Your task to perform on an android device: What's on my calendar tomorrow? Image 0: 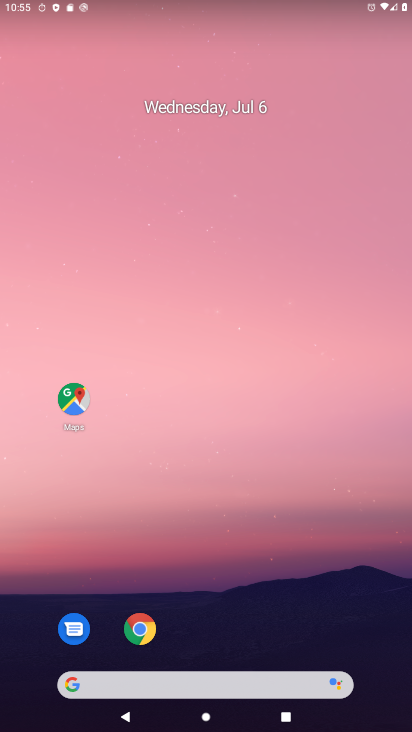
Step 0: press home button
Your task to perform on an android device: What's on my calendar tomorrow? Image 1: 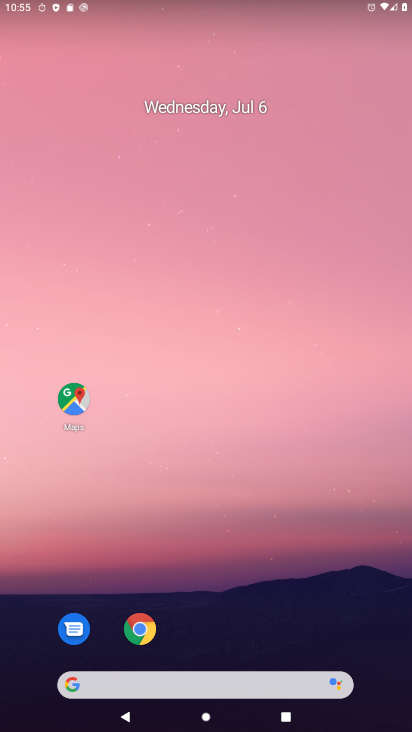
Step 1: drag from (248, 622) to (327, 94)
Your task to perform on an android device: What's on my calendar tomorrow? Image 2: 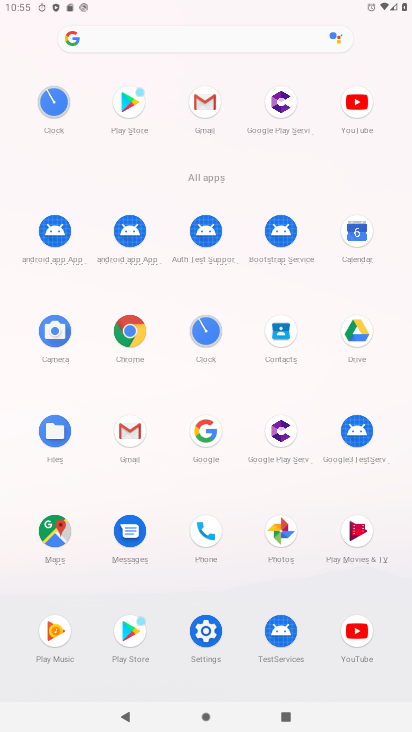
Step 2: click (357, 234)
Your task to perform on an android device: What's on my calendar tomorrow? Image 3: 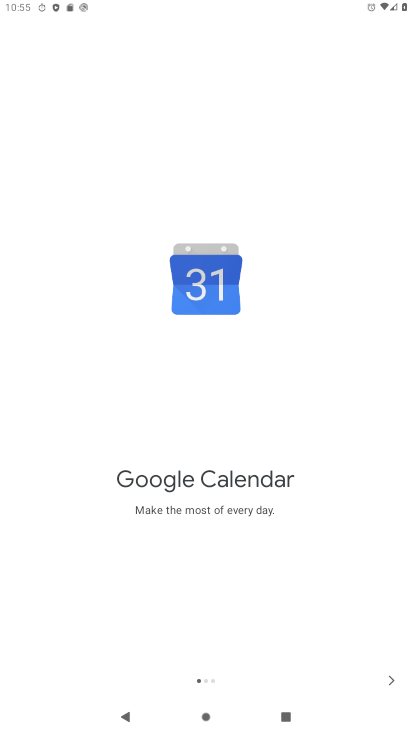
Step 3: click (382, 685)
Your task to perform on an android device: What's on my calendar tomorrow? Image 4: 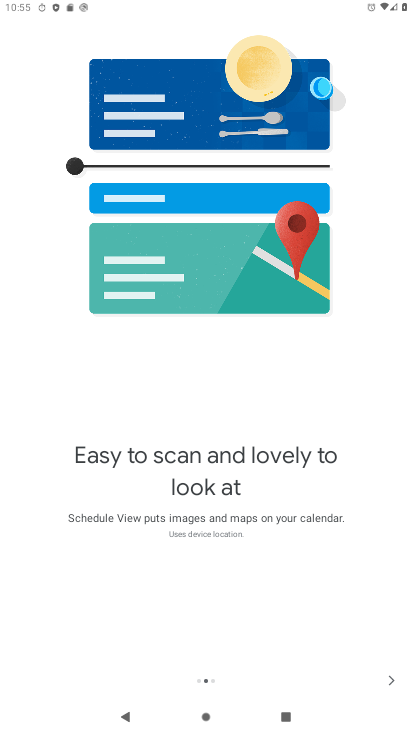
Step 4: click (382, 685)
Your task to perform on an android device: What's on my calendar tomorrow? Image 5: 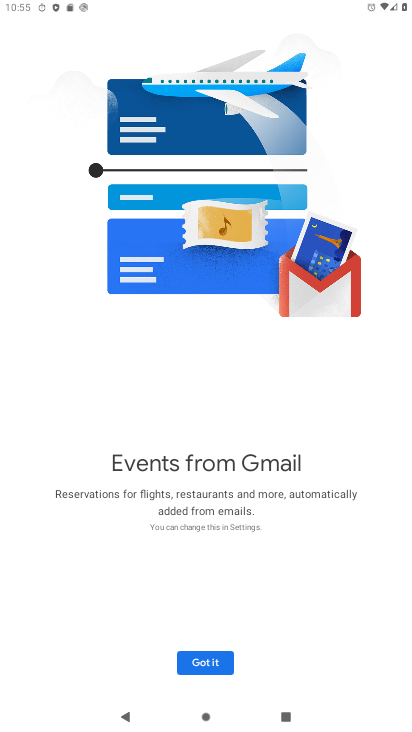
Step 5: click (204, 662)
Your task to perform on an android device: What's on my calendar tomorrow? Image 6: 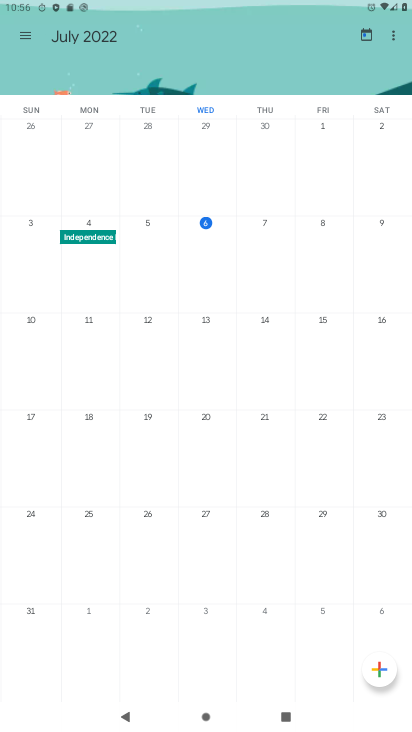
Step 6: click (260, 225)
Your task to perform on an android device: What's on my calendar tomorrow? Image 7: 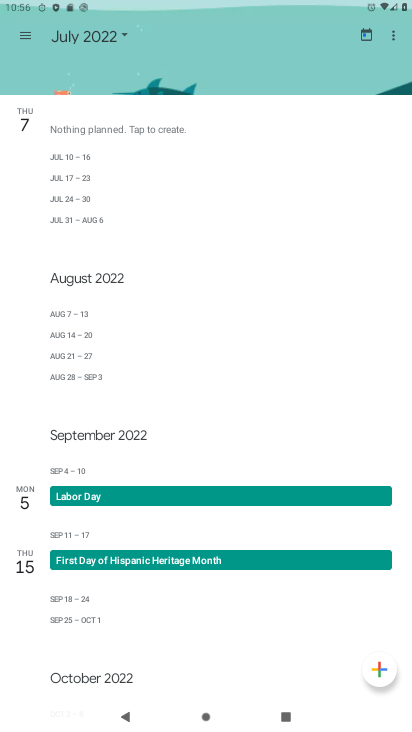
Step 7: task complete